Your task to perform on an android device: toggle sleep mode Image 0: 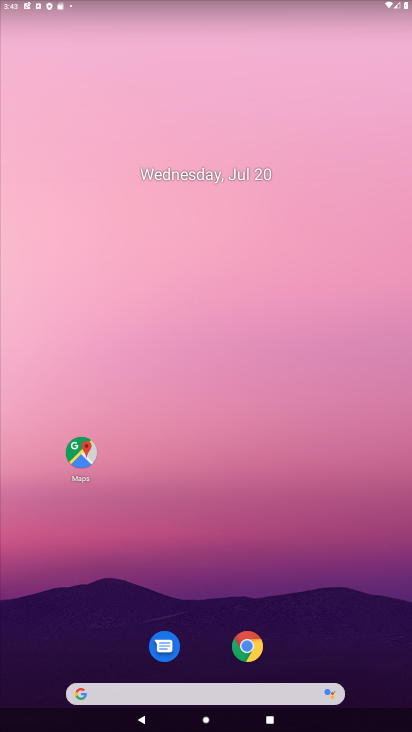
Step 0: drag from (209, 615) to (216, 150)
Your task to perform on an android device: toggle sleep mode Image 1: 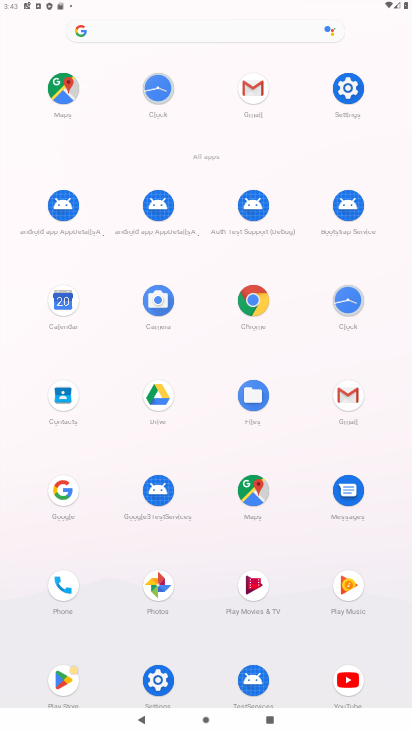
Step 1: click (340, 90)
Your task to perform on an android device: toggle sleep mode Image 2: 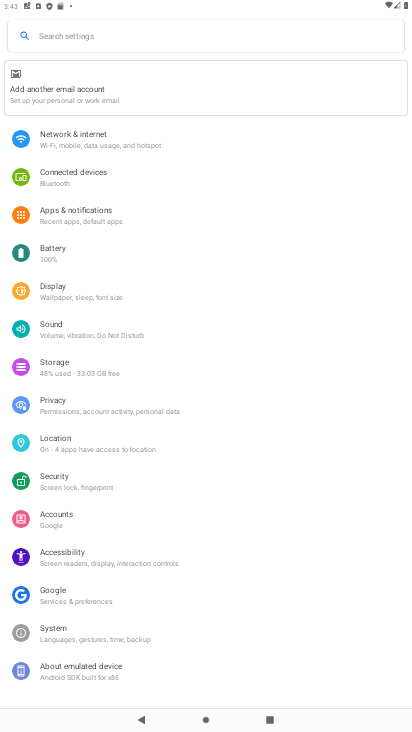
Step 2: click (88, 295)
Your task to perform on an android device: toggle sleep mode Image 3: 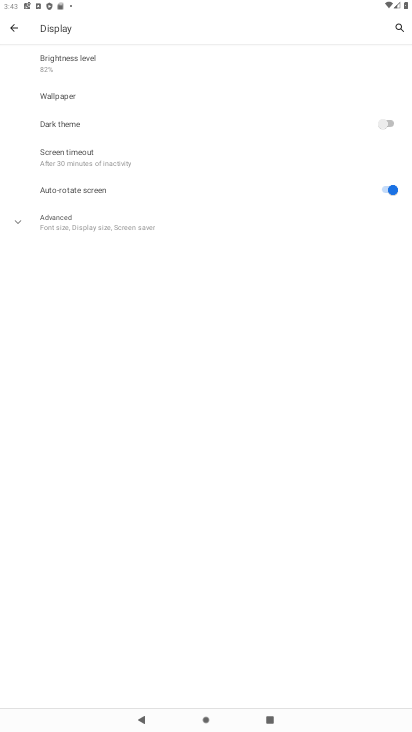
Step 3: click (105, 167)
Your task to perform on an android device: toggle sleep mode Image 4: 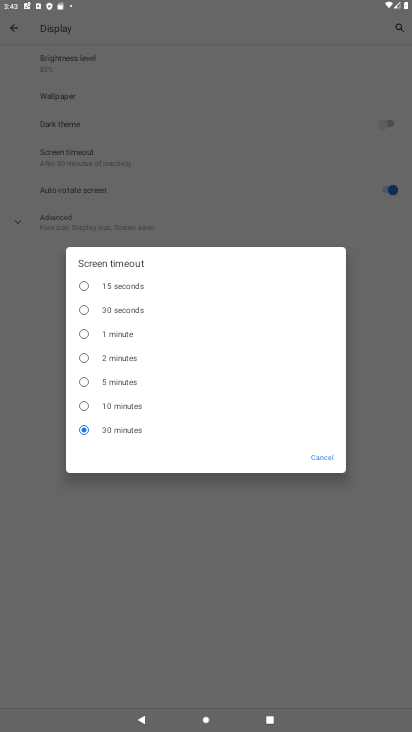
Step 4: click (129, 333)
Your task to perform on an android device: toggle sleep mode Image 5: 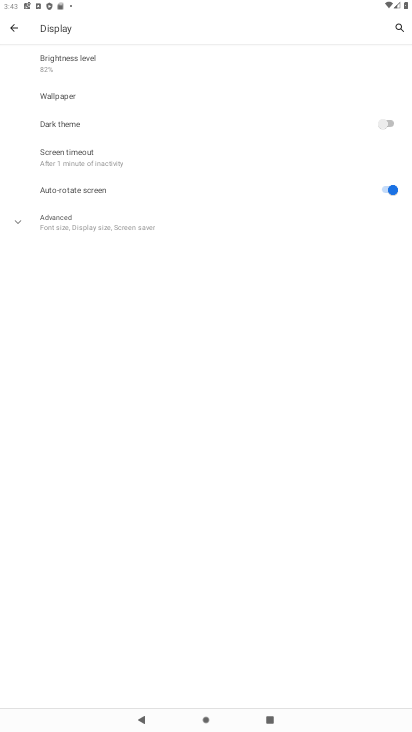
Step 5: task complete